Your task to perform on an android device: Go to accessibility settings Image 0: 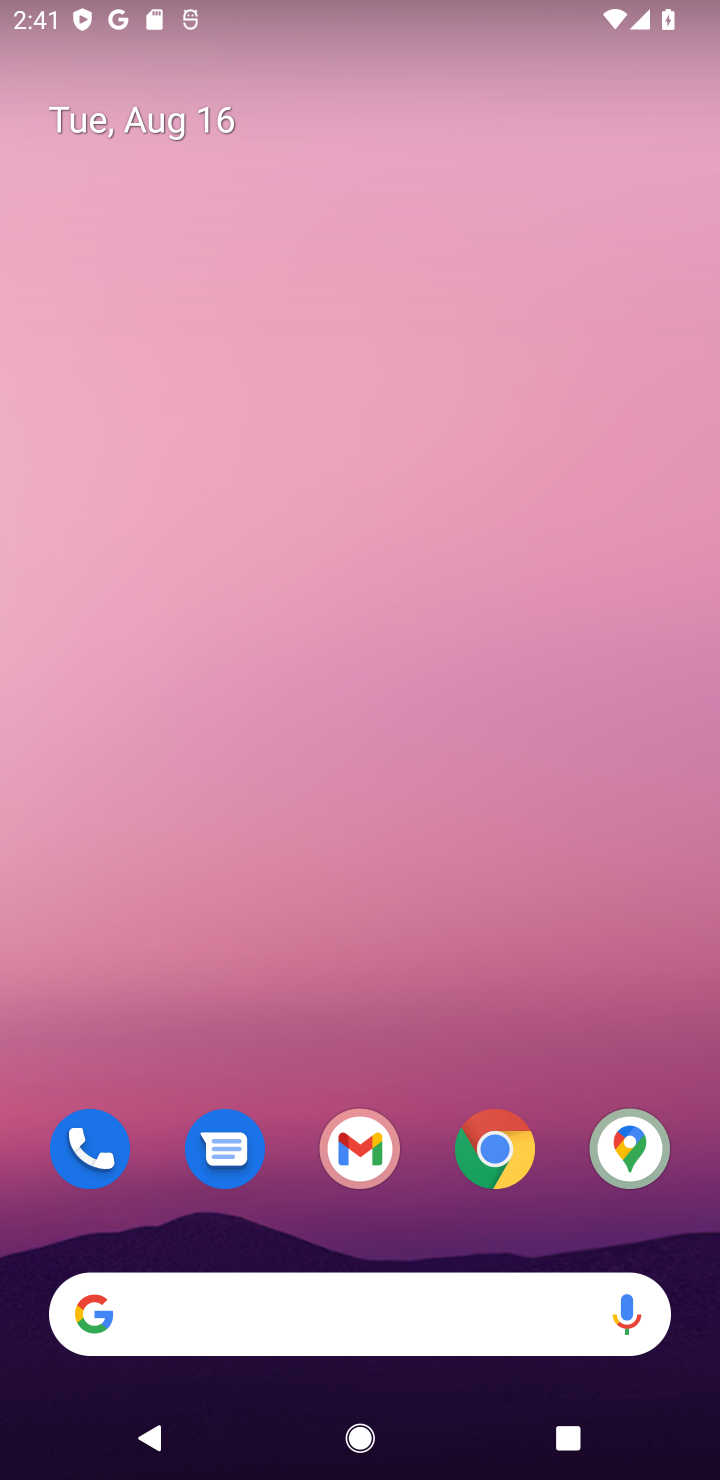
Step 0: drag from (399, 976) to (444, 0)
Your task to perform on an android device: Go to accessibility settings Image 1: 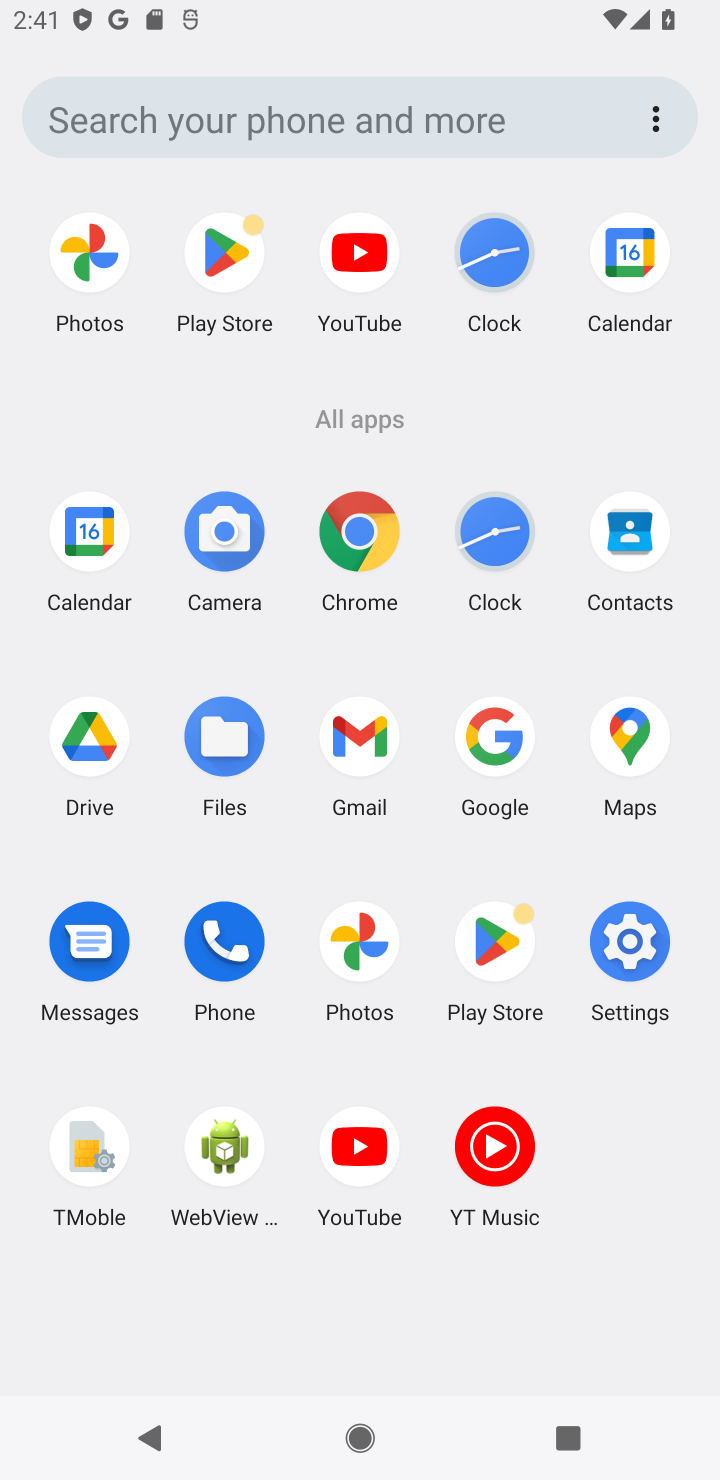
Step 1: click (631, 948)
Your task to perform on an android device: Go to accessibility settings Image 2: 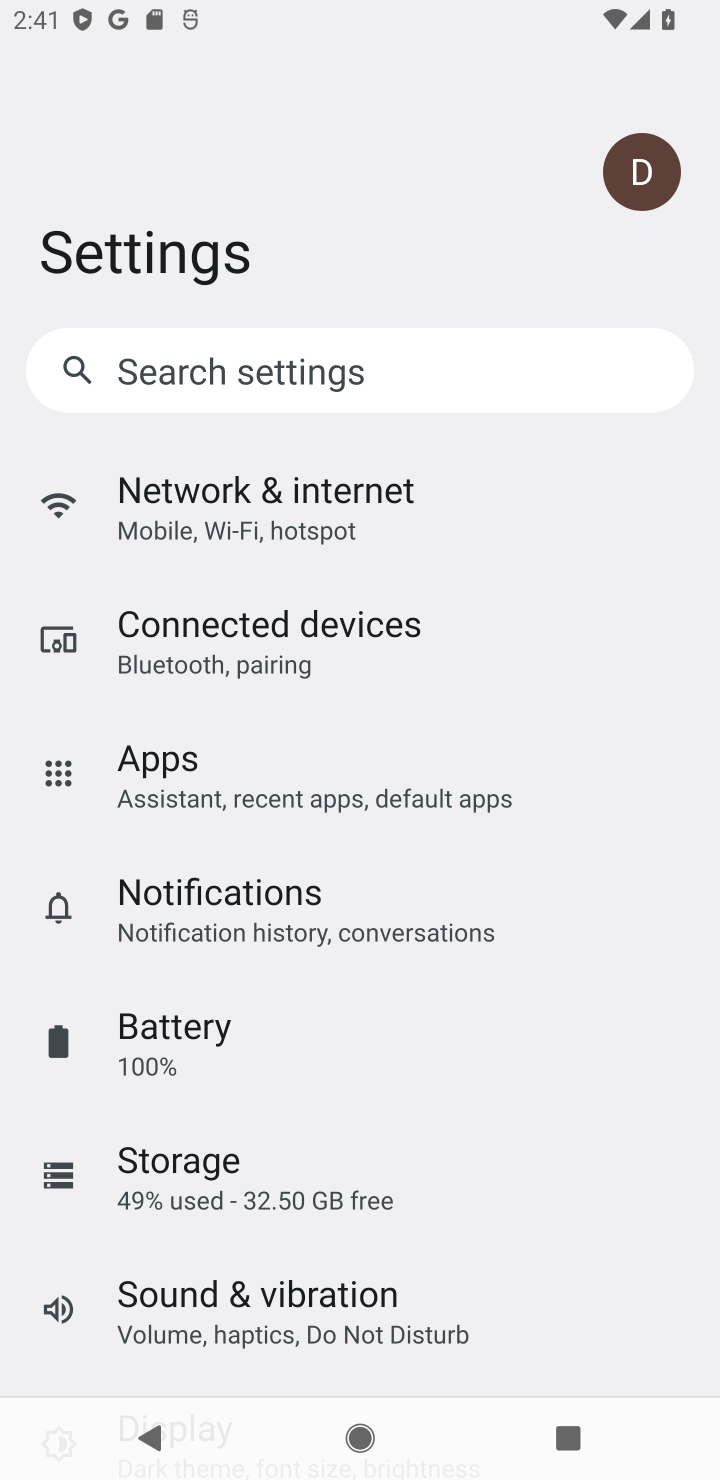
Step 2: drag from (383, 1122) to (443, 2)
Your task to perform on an android device: Go to accessibility settings Image 3: 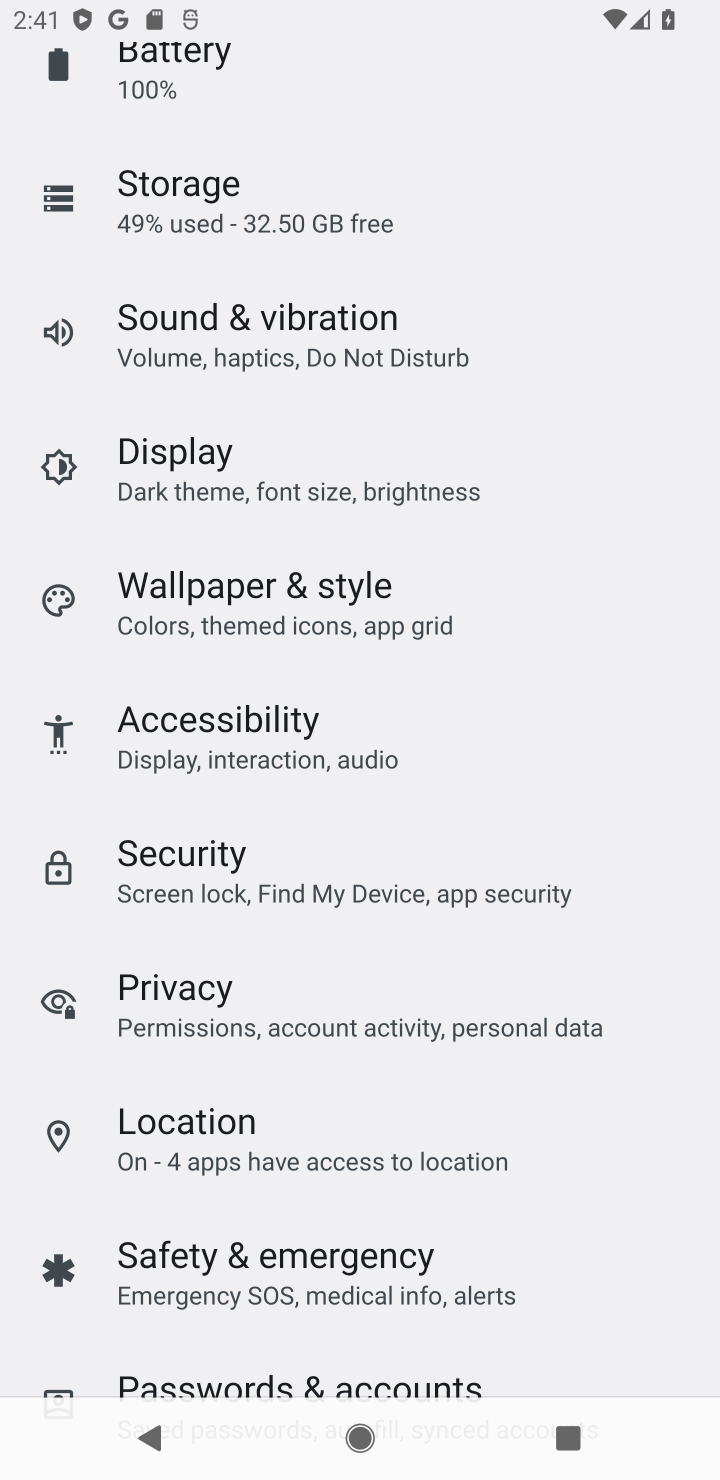
Step 3: click (365, 731)
Your task to perform on an android device: Go to accessibility settings Image 4: 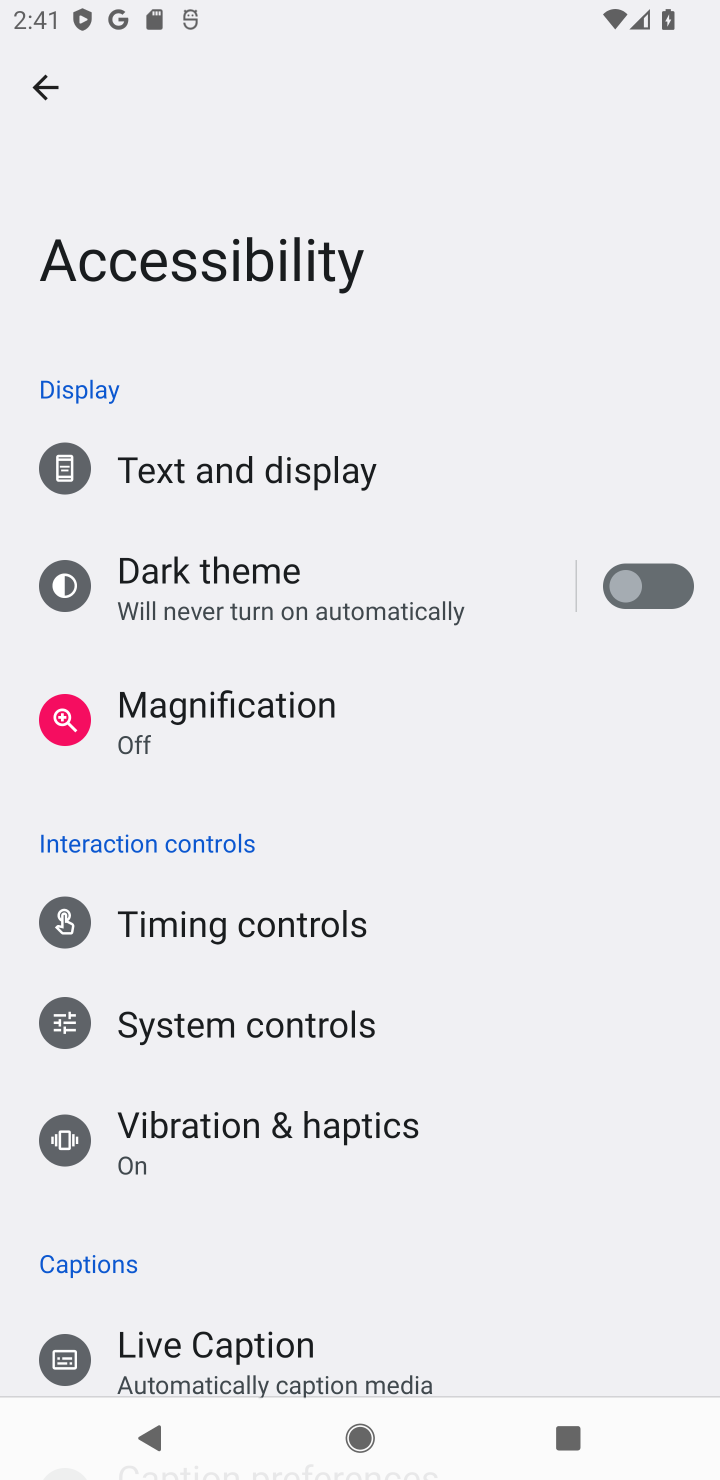
Step 4: task complete